Your task to perform on an android device: show emergency info Image 0: 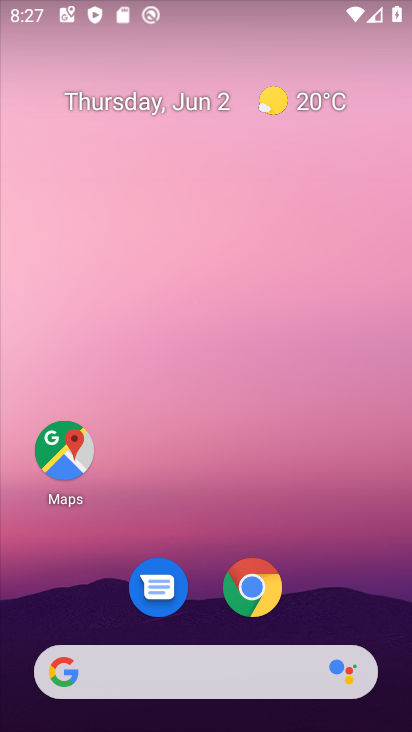
Step 0: drag from (186, 631) to (320, 22)
Your task to perform on an android device: show emergency info Image 1: 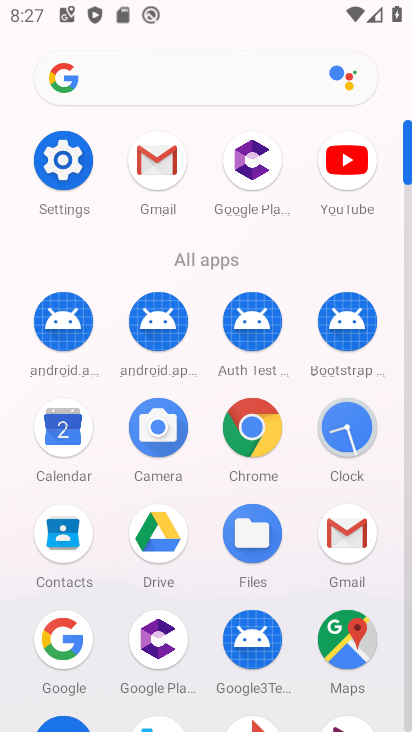
Step 1: click (57, 164)
Your task to perform on an android device: show emergency info Image 2: 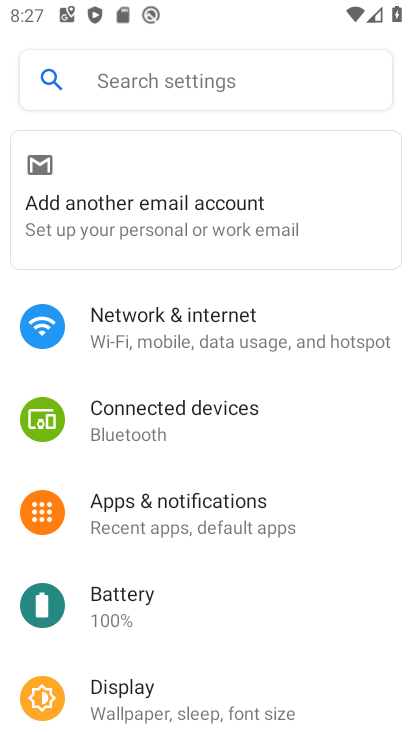
Step 2: drag from (145, 569) to (215, 92)
Your task to perform on an android device: show emergency info Image 3: 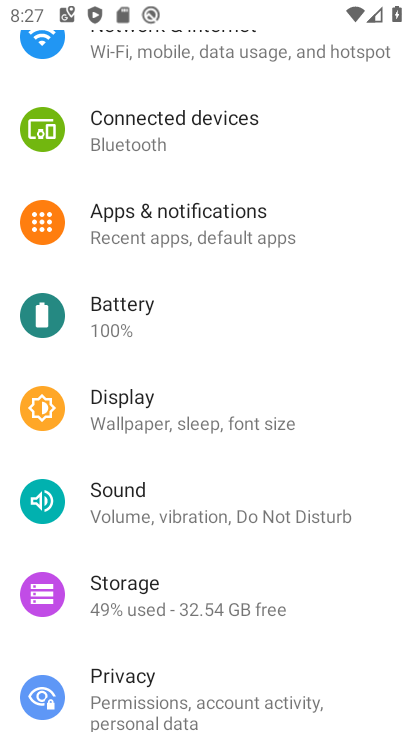
Step 3: drag from (186, 666) to (286, 20)
Your task to perform on an android device: show emergency info Image 4: 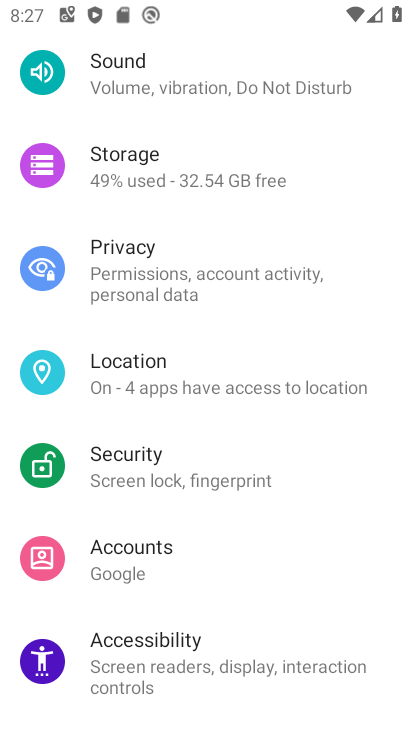
Step 4: drag from (166, 590) to (204, 111)
Your task to perform on an android device: show emergency info Image 5: 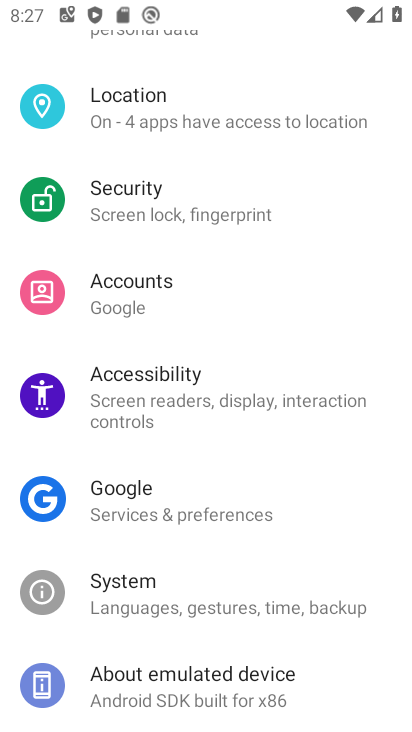
Step 5: drag from (154, 628) to (193, 17)
Your task to perform on an android device: show emergency info Image 6: 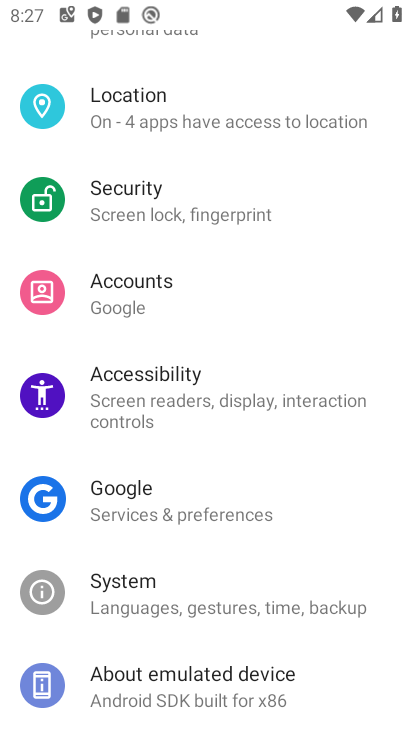
Step 6: click (220, 684)
Your task to perform on an android device: show emergency info Image 7: 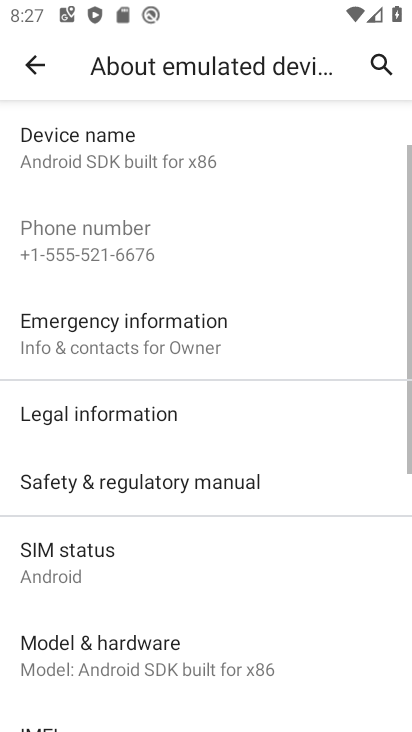
Step 7: click (176, 338)
Your task to perform on an android device: show emergency info Image 8: 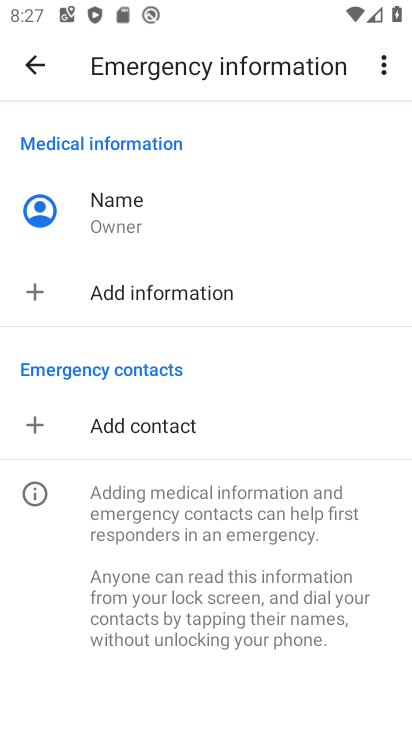
Step 8: task complete